Your task to perform on an android device: install app "Fetch Rewards" Image 0: 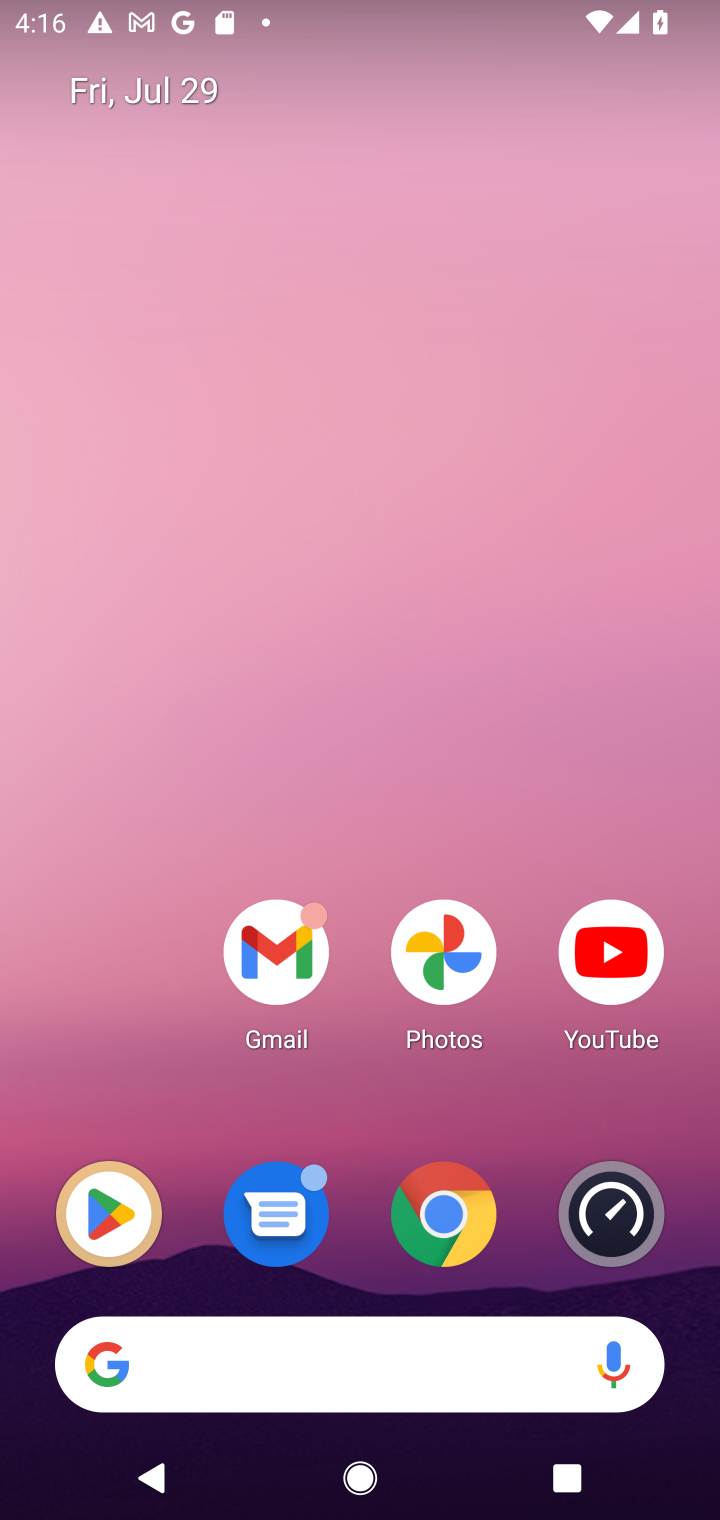
Step 0: click (105, 1212)
Your task to perform on an android device: install app "Fetch Rewards" Image 1: 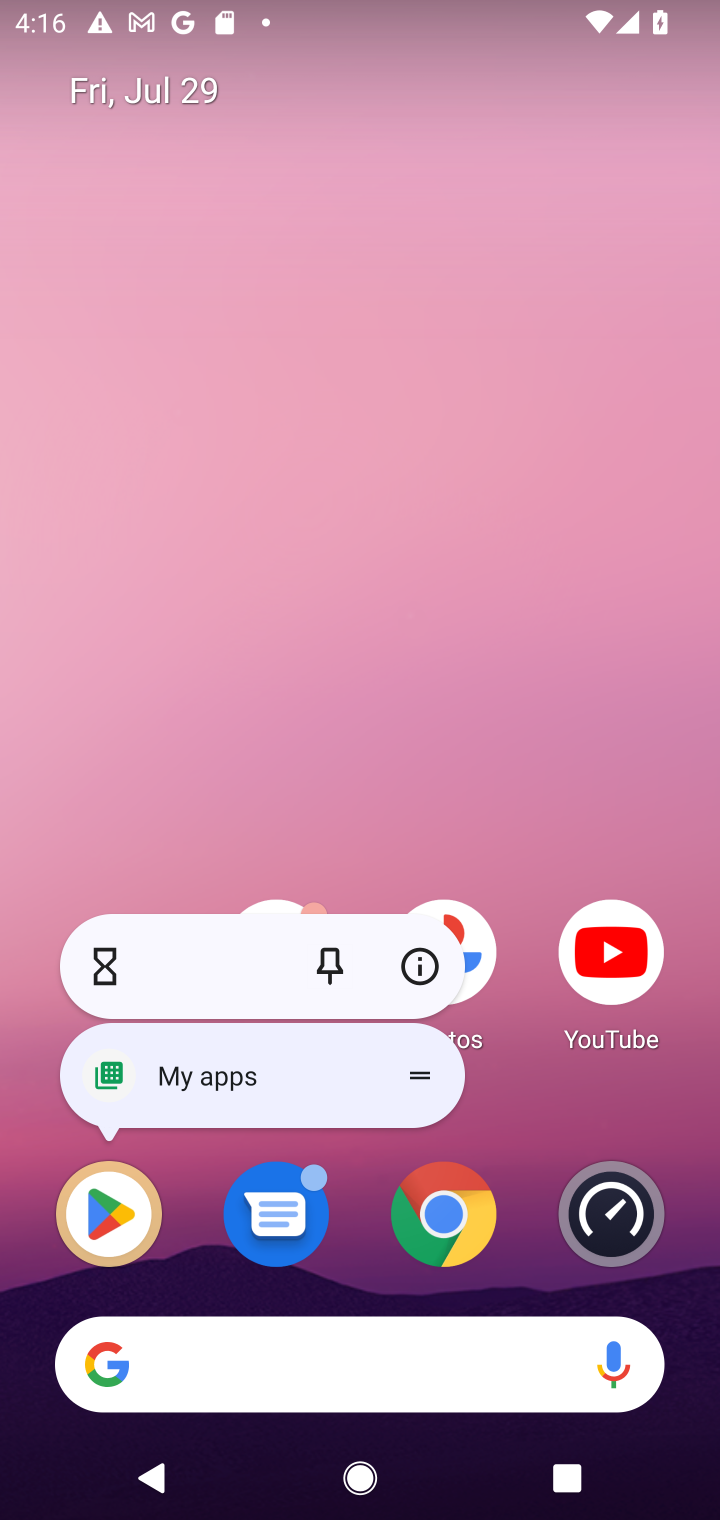
Step 1: click (97, 1232)
Your task to perform on an android device: install app "Fetch Rewards" Image 2: 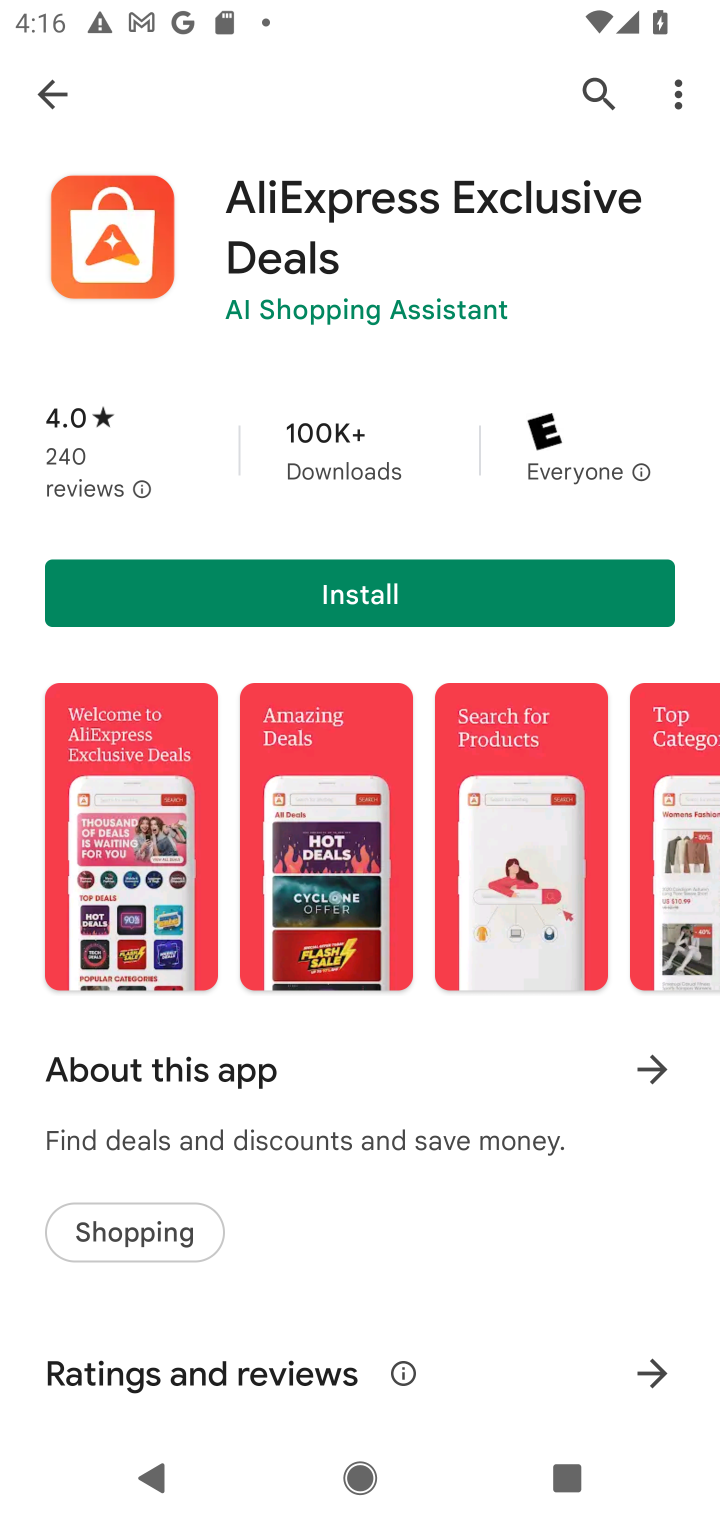
Step 2: click (62, 88)
Your task to perform on an android device: install app "Fetch Rewards" Image 3: 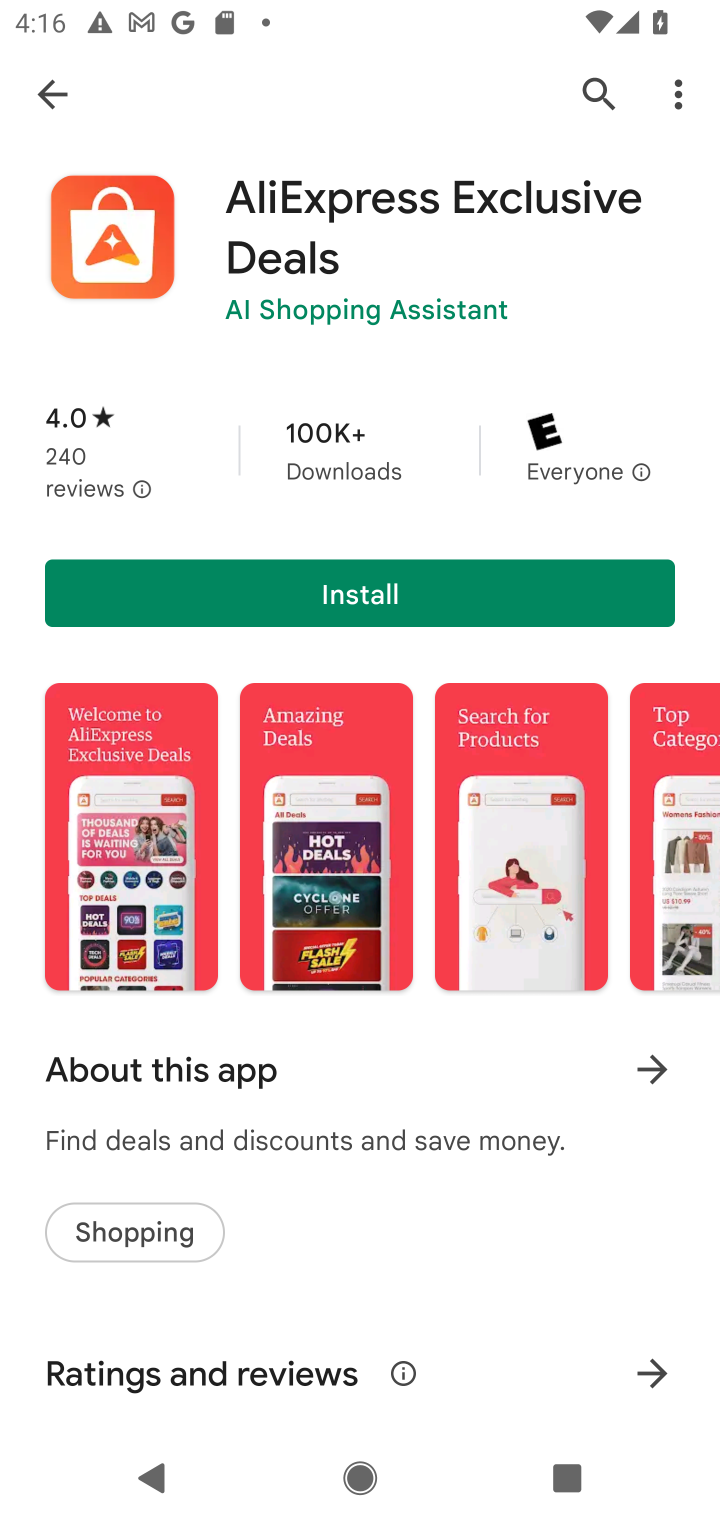
Step 3: click (46, 98)
Your task to perform on an android device: install app "Fetch Rewards" Image 4: 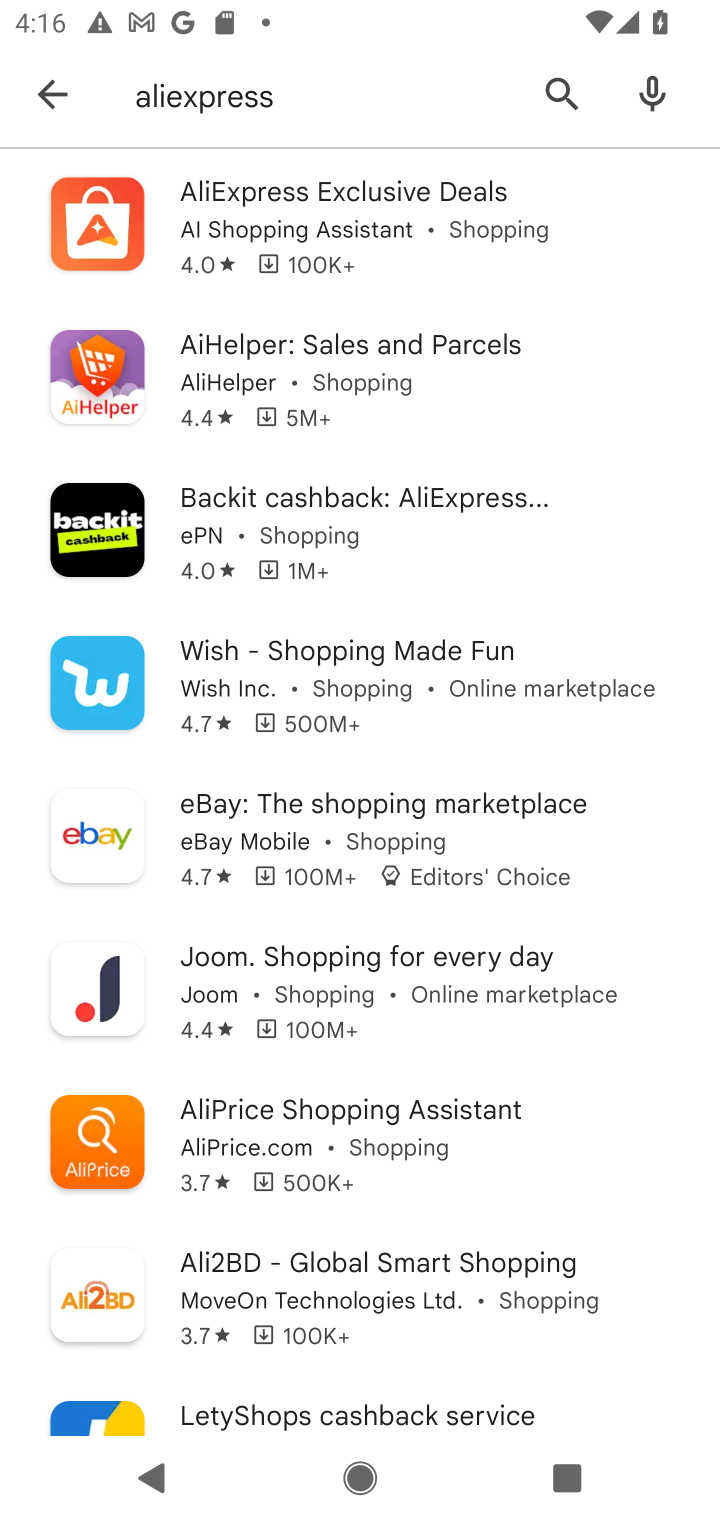
Step 4: click (189, 75)
Your task to perform on an android device: install app "Fetch Rewards" Image 5: 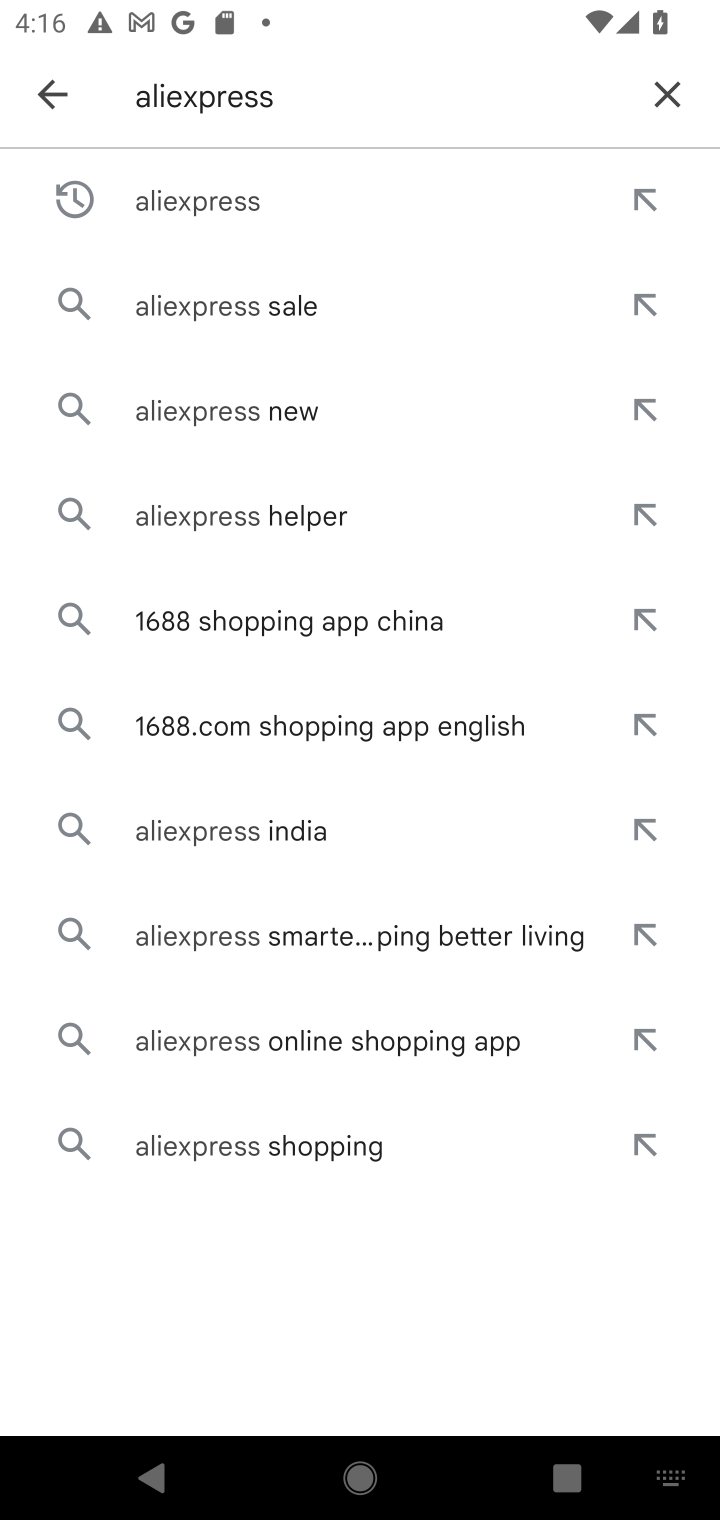
Step 5: click (679, 109)
Your task to perform on an android device: install app "Fetch Rewards" Image 6: 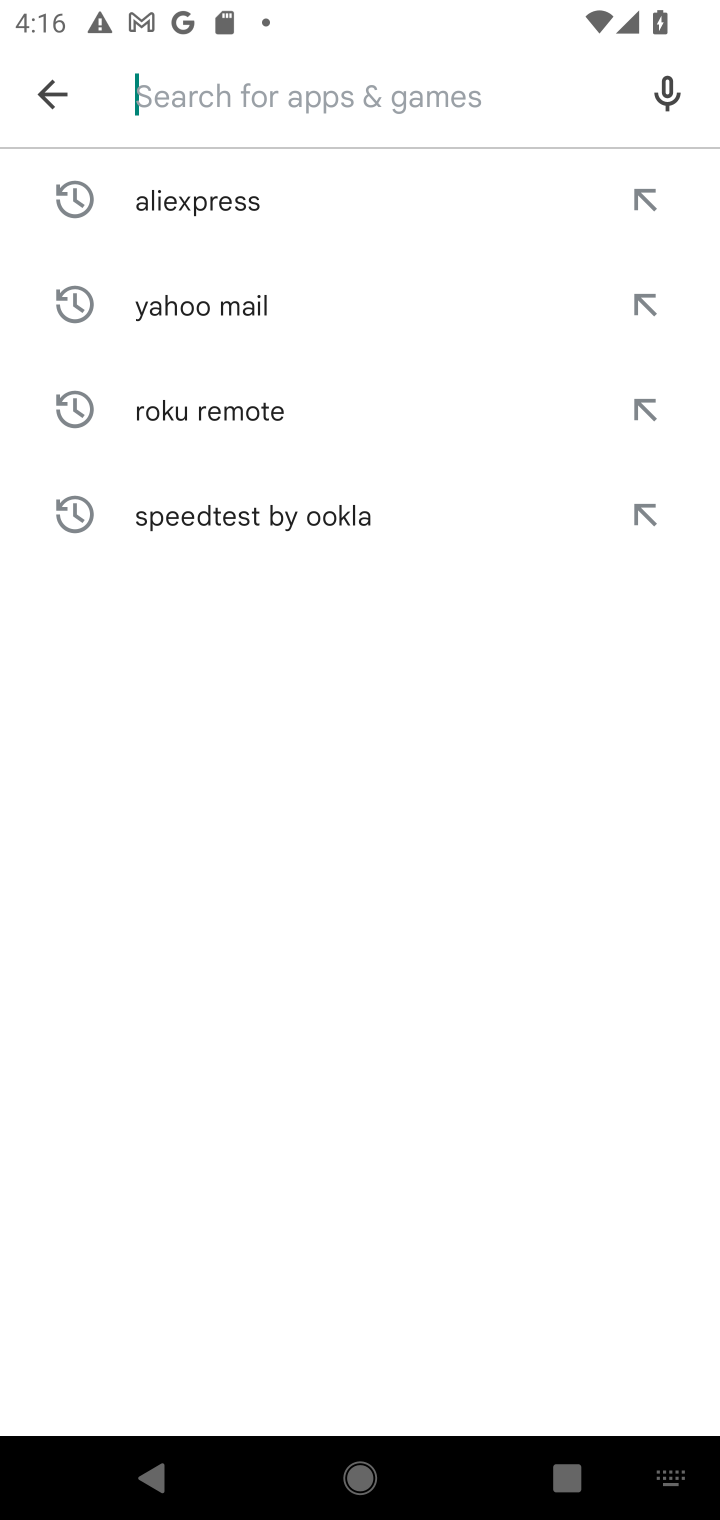
Step 6: type "fetch rewards"
Your task to perform on an android device: install app "Fetch Rewards" Image 7: 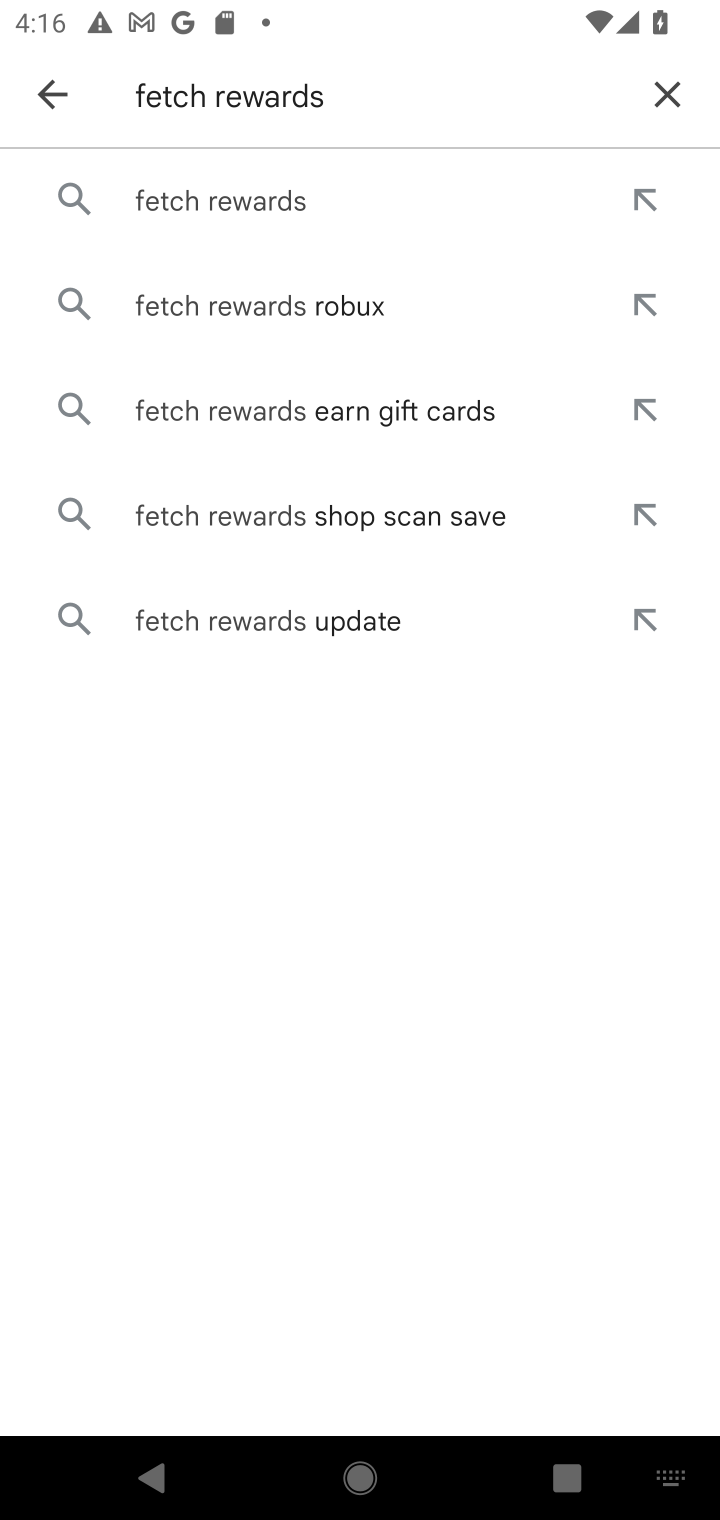
Step 7: click (277, 233)
Your task to perform on an android device: install app "Fetch Rewards" Image 8: 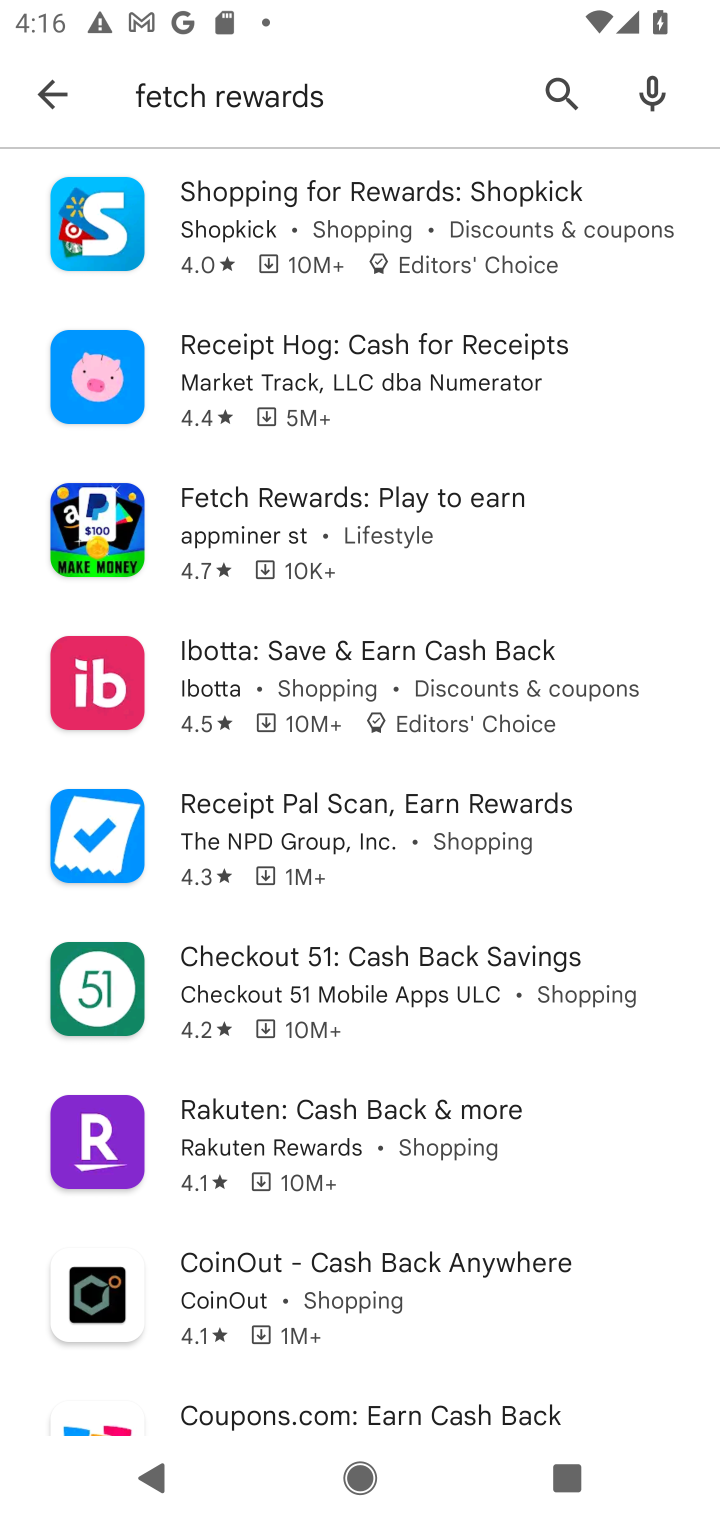
Step 8: click (370, 543)
Your task to perform on an android device: install app "Fetch Rewards" Image 9: 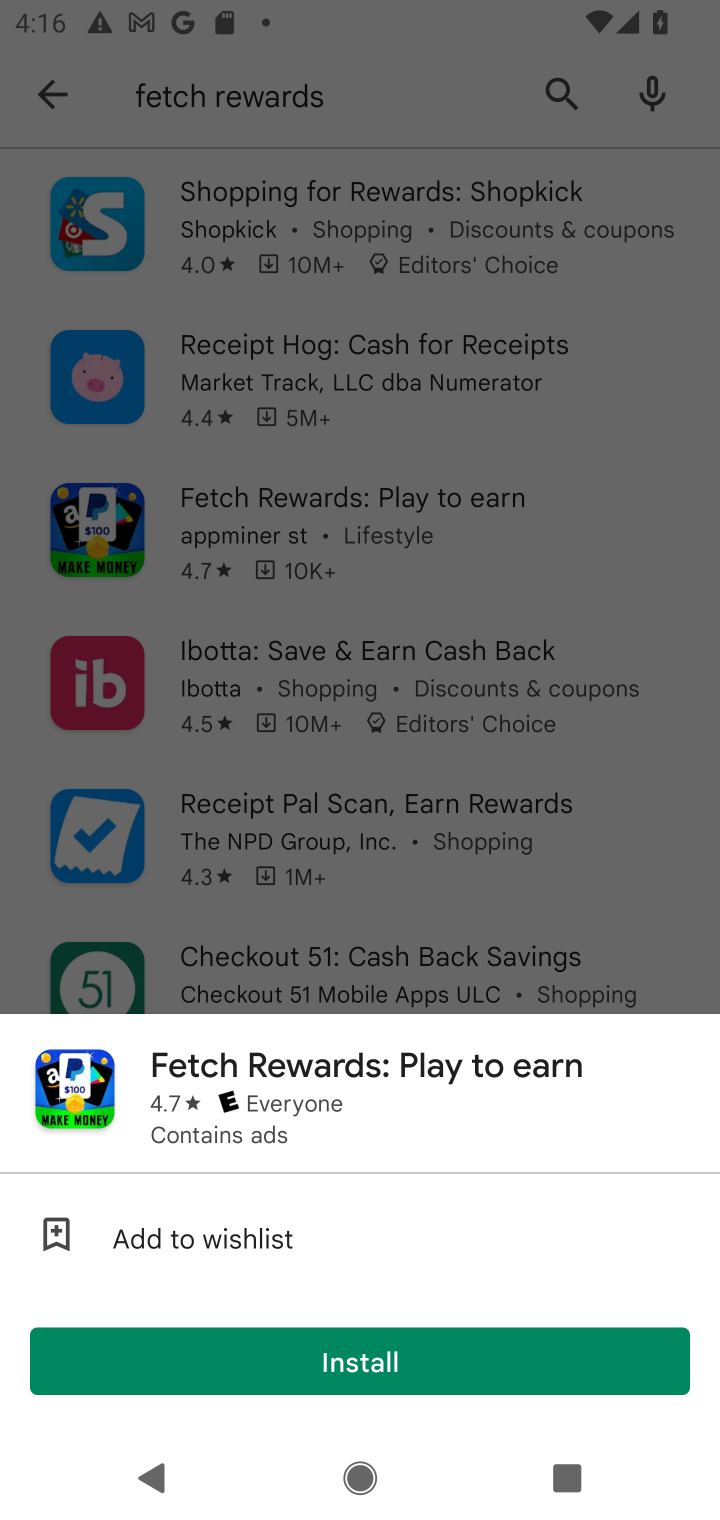
Step 9: click (283, 1374)
Your task to perform on an android device: install app "Fetch Rewards" Image 10: 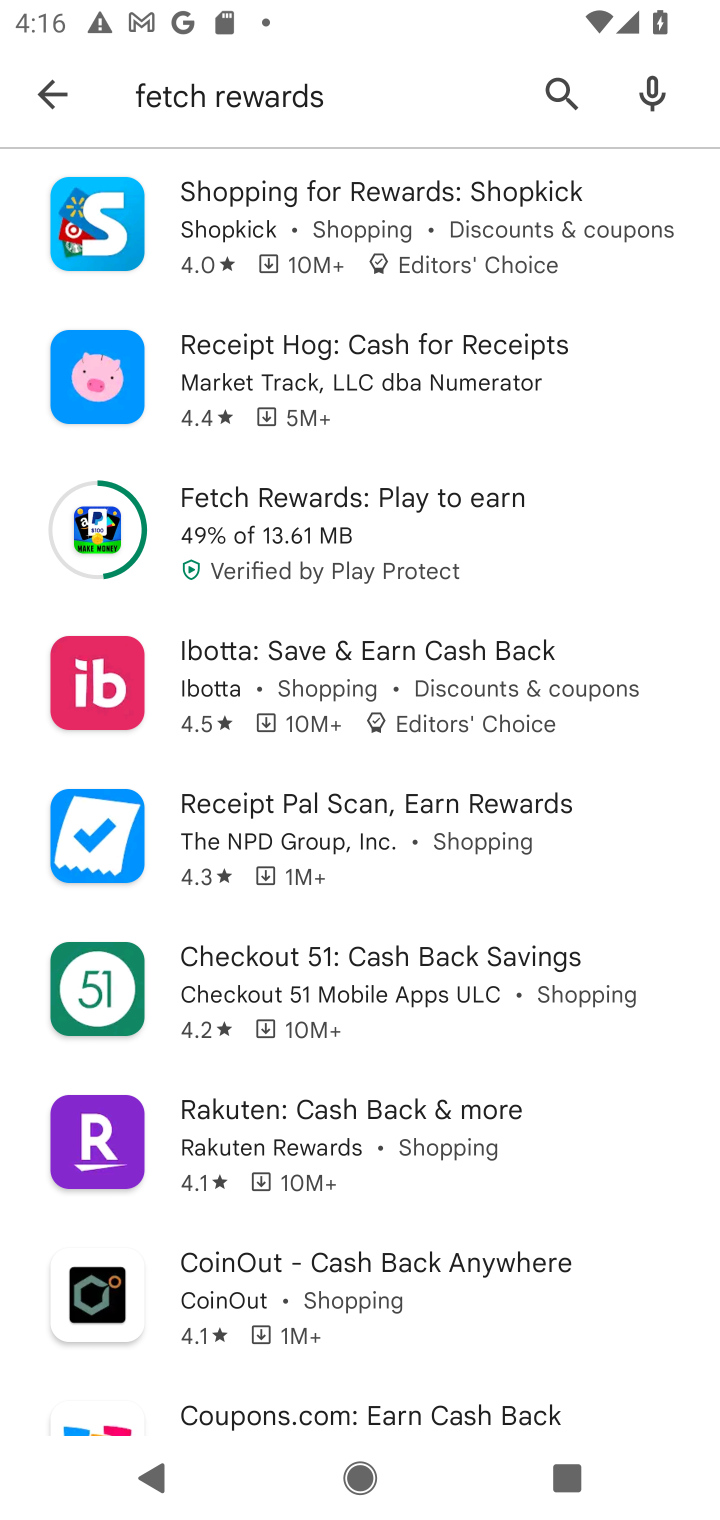
Step 10: click (204, 518)
Your task to perform on an android device: install app "Fetch Rewards" Image 11: 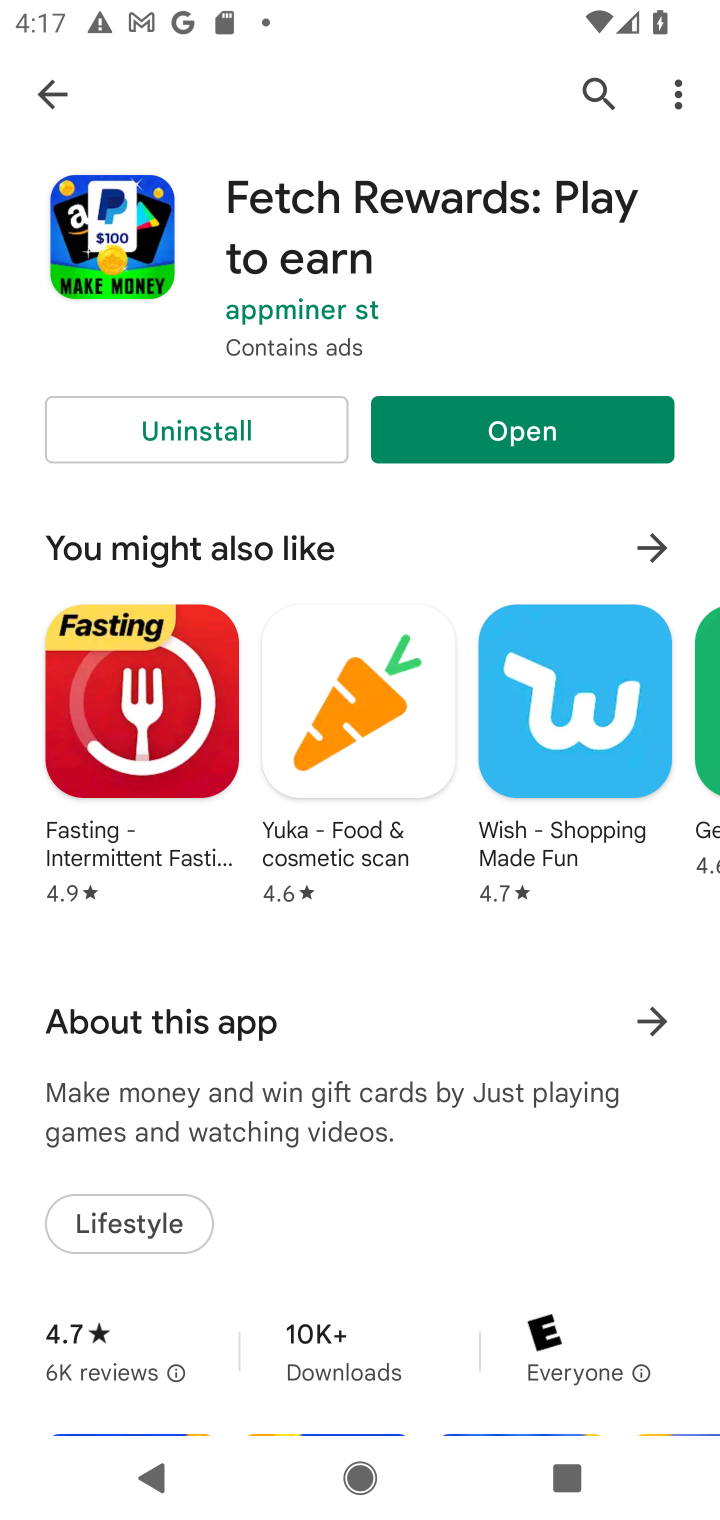
Step 11: task complete